Your task to perform on an android device: Search for pizza restaurants on Maps Image 0: 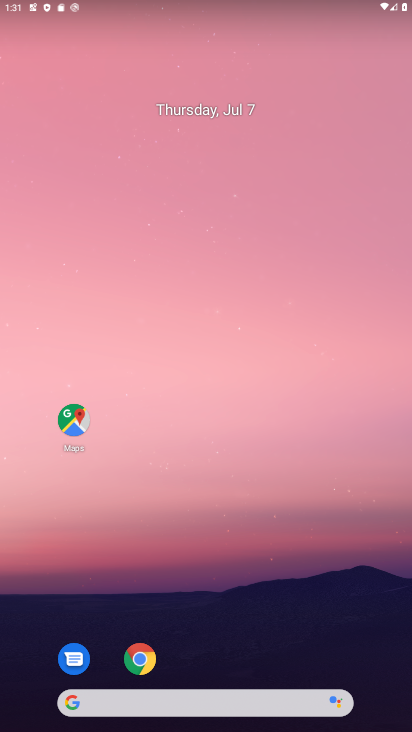
Step 0: press home button
Your task to perform on an android device: Search for pizza restaurants on Maps Image 1: 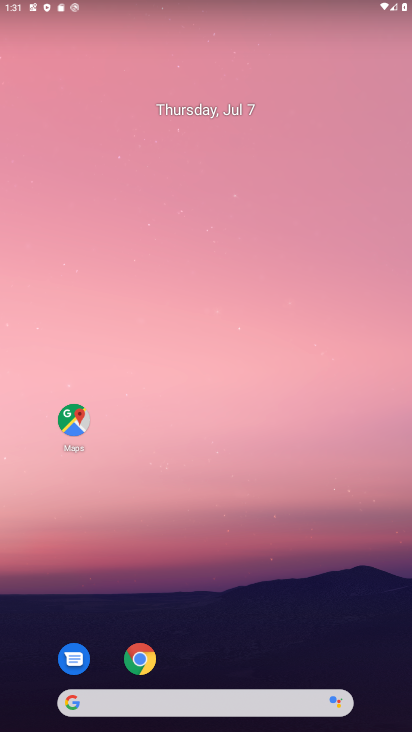
Step 1: click (76, 411)
Your task to perform on an android device: Search for pizza restaurants on Maps Image 2: 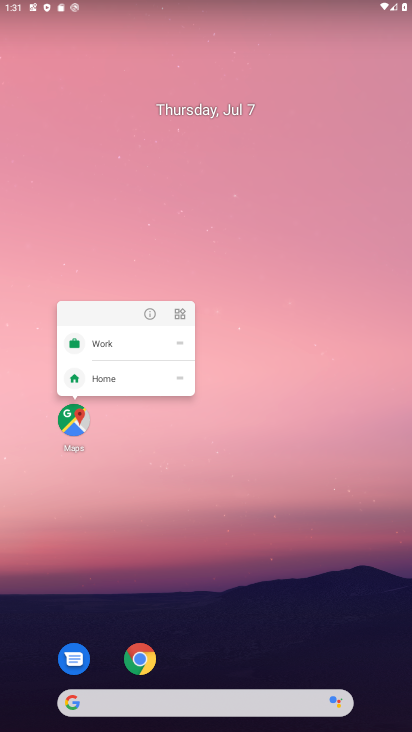
Step 2: click (73, 416)
Your task to perform on an android device: Search for pizza restaurants on Maps Image 3: 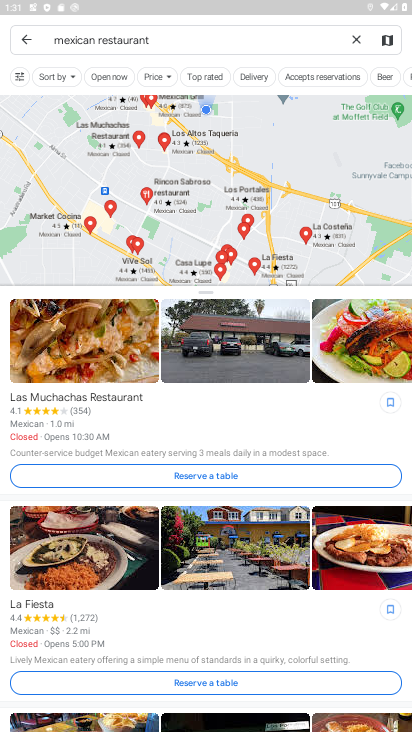
Step 3: click (350, 40)
Your task to perform on an android device: Search for pizza restaurants on Maps Image 4: 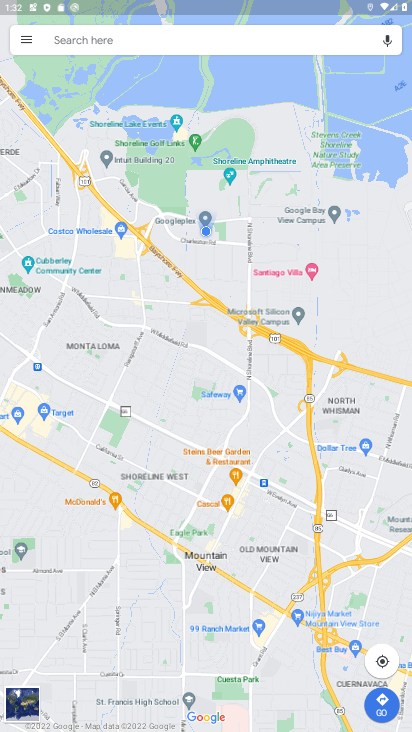
Step 4: click (135, 36)
Your task to perform on an android device: Search for pizza restaurants on Maps Image 5: 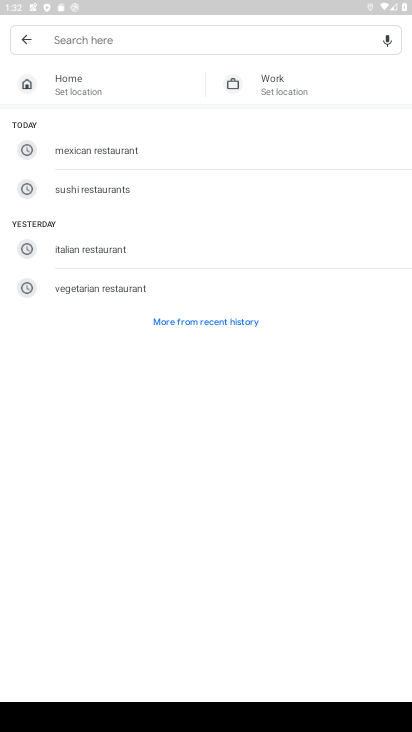
Step 5: type "pizza"
Your task to perform on an android device: Search for pizza restaurants on Maps Image 6: 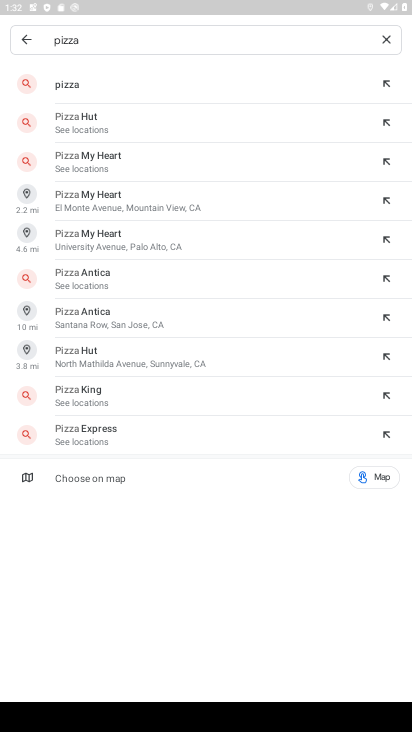
Step 6: type " "
Your task to perform on an android device: Search for pizza restaurants on Maps Image 7: 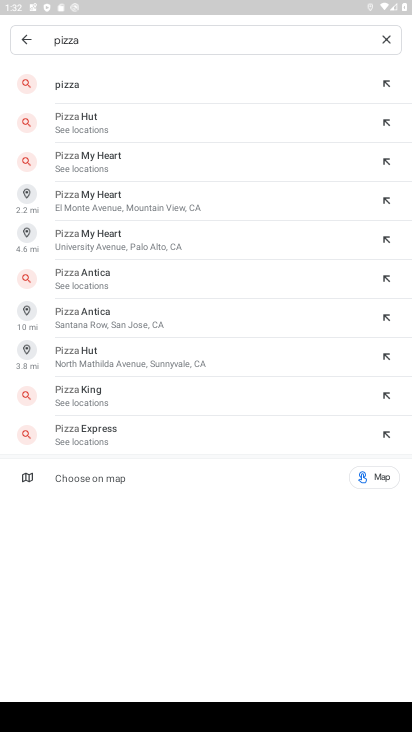
Step 7: type "restaurant"
Your task to perform on an android device: Search for pizza restaurants on Maps Image 8: 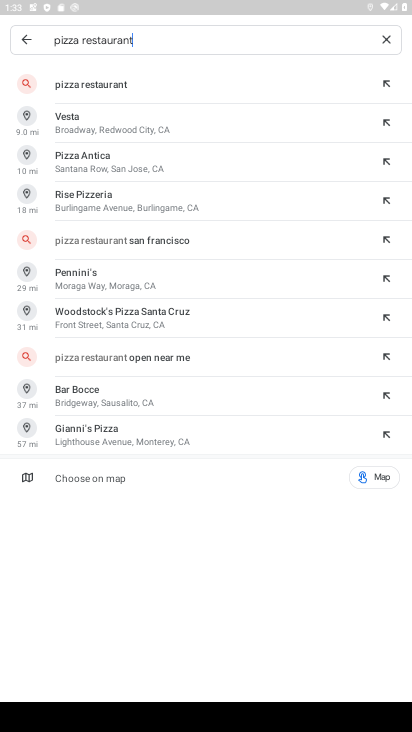
Step 8: click (160, 84)
Your task to perform on an android device: Search for pizza restaurants on Maps Image 9: 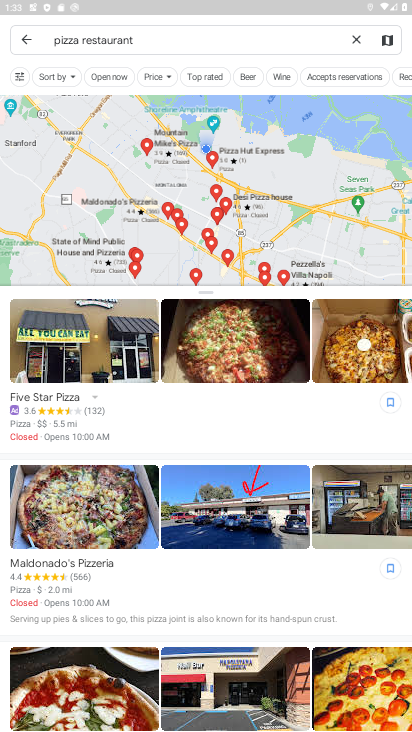
Step 9: task complete